Your task to perform on an android device: Go to Wikipedia Image 0: 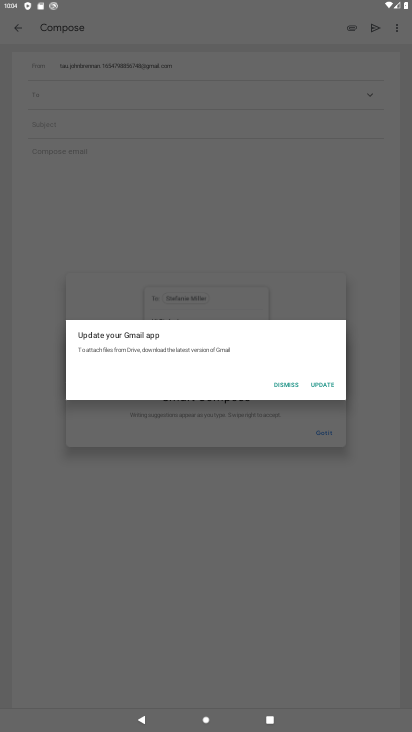
Step 0: press home button
Your task to perform on an android device: Go to Wikipedia Image 1: 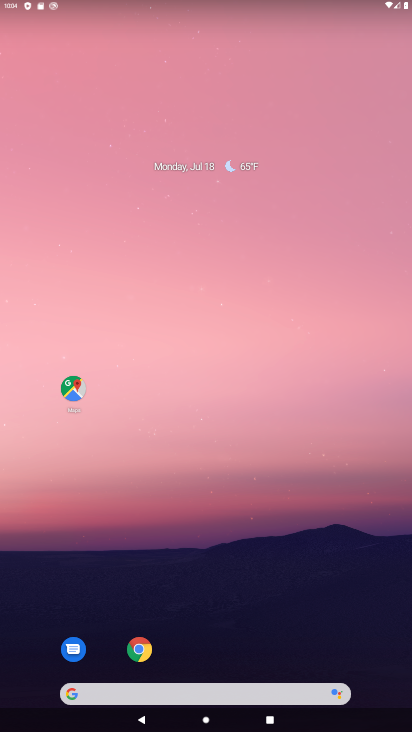
Step 1: click (144, 652)
Your task to perform on an android device: Go to Wikipedia Image 2: 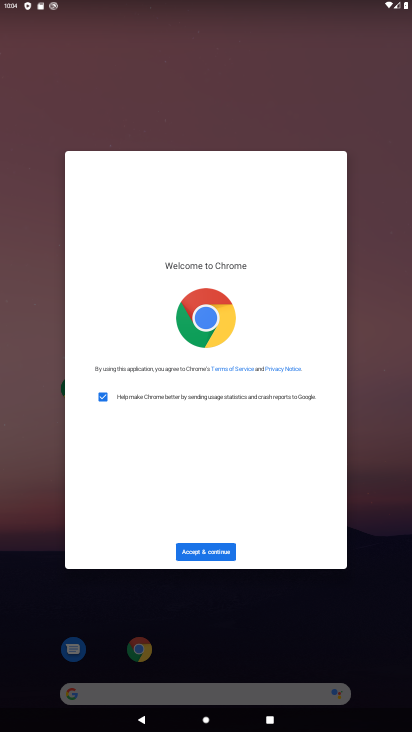
Step 2: click (225, 543)
Your task to perform on an android device: Go to Wikipedia Image 3: 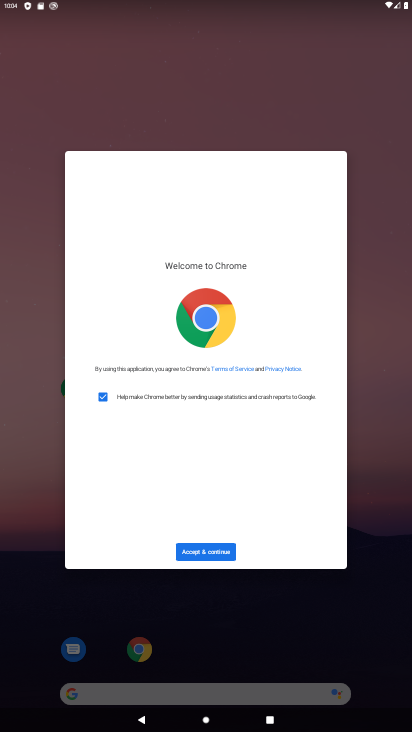
Step 3: click (225, 543)
Your task to perform on an android device: Go to Wikipedia Image 4: 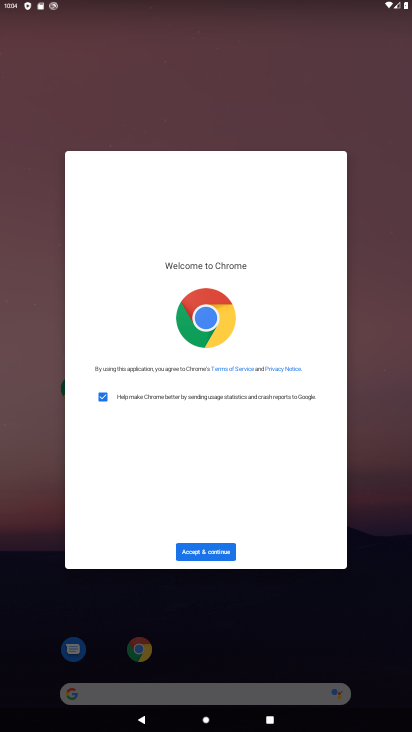
Step 4: click (214, 553)
Your task to perform on an android device: Go to Wikipedia Image 5: 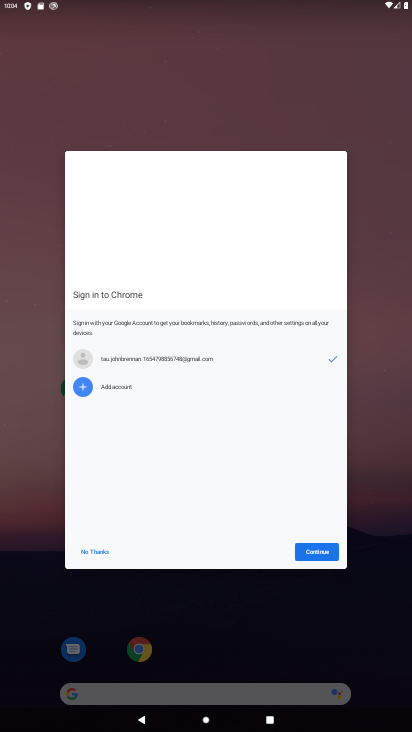
Step 5: click (311, 541)
Your task to perform on an android device: Go to Wikipedia Image 6: 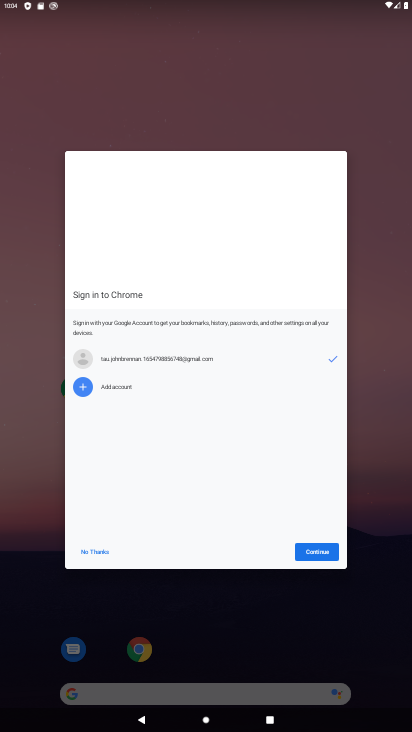
Step 6: click (319, 558)
Your task to perform on an android device: Go to Wikipedia Image 7: 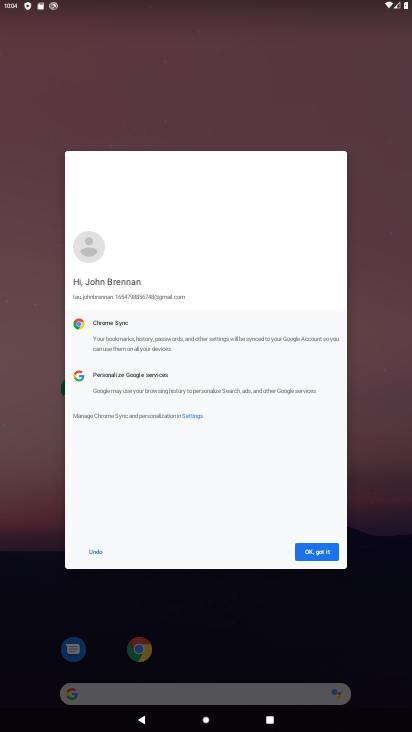
Step 7: click (319, 558)
Your task to perform on an android device: Go to Wikipedia Image 8: 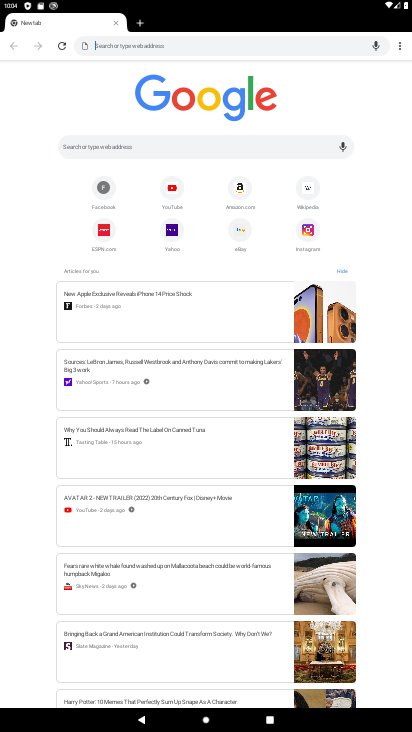
Step 8: click (313, 191)
Your task to perform on an android device: Go to Wikipedia Image 9: 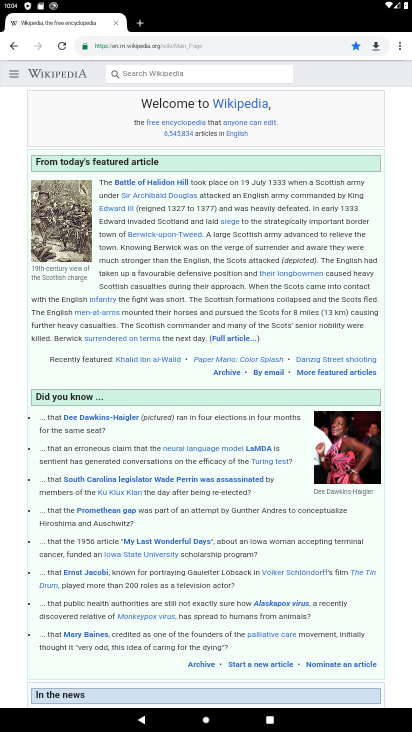
Step 9: task complete